Your task to perform on an android device: turn vacation reply on in the gmail app Image 0: 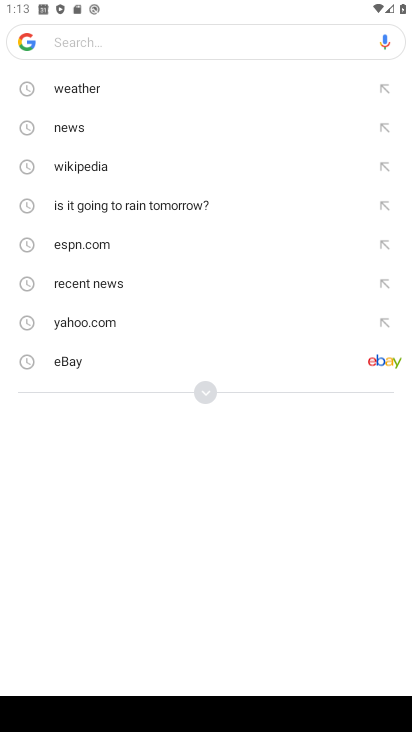
Step 0: press back button
Your task to perform on an android device: turn vacation reply on in the gmail app Image 1: 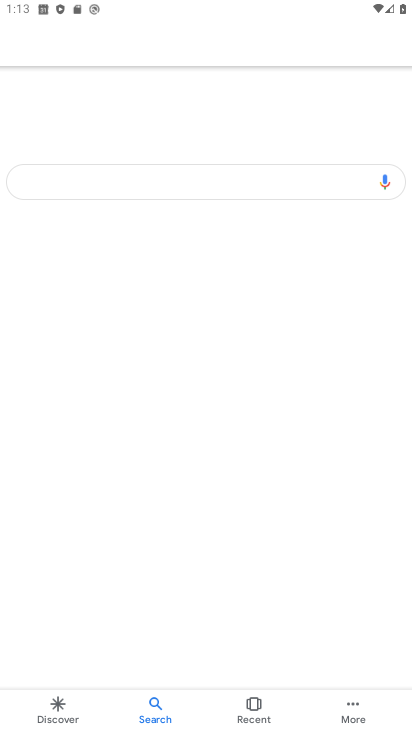
Step 1: press back button
Your task to perform on an android device: turn vacation reply on in the gmail app Image 2: 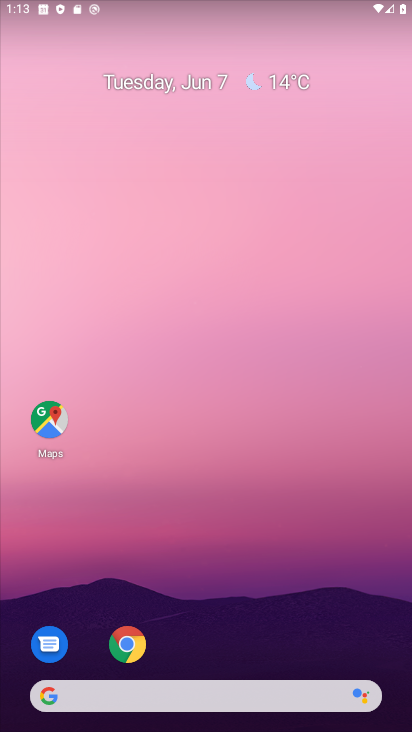
Step 2: drag from (97, 725) to (115, 160)
Your task to perform on an android device: turn vacation reply on in the gmail app Image 3: 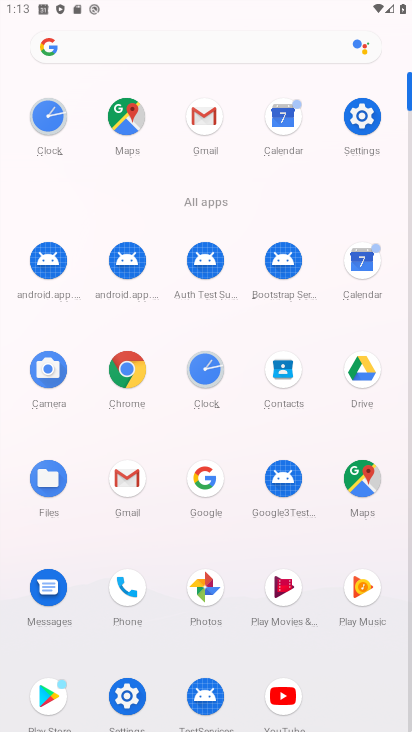
Step 3: click (206, 120)
Your task to perform on an android device: turn vacation reply on in the gmail app Image 4: 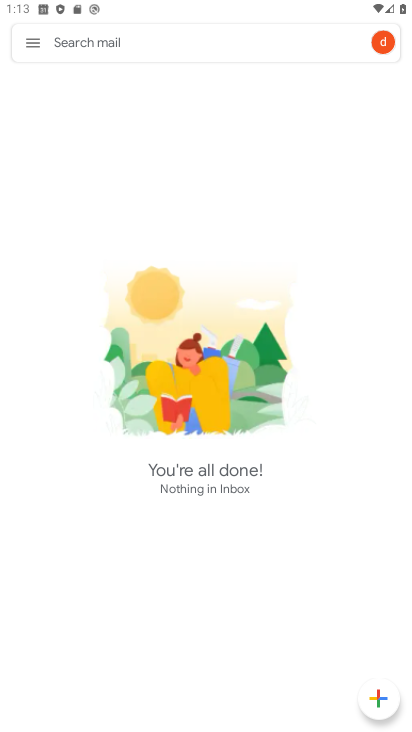
Step 4: click (34, 50)
Your task to perform on an android device: turn vacation reply on in the gmail app Image 5: 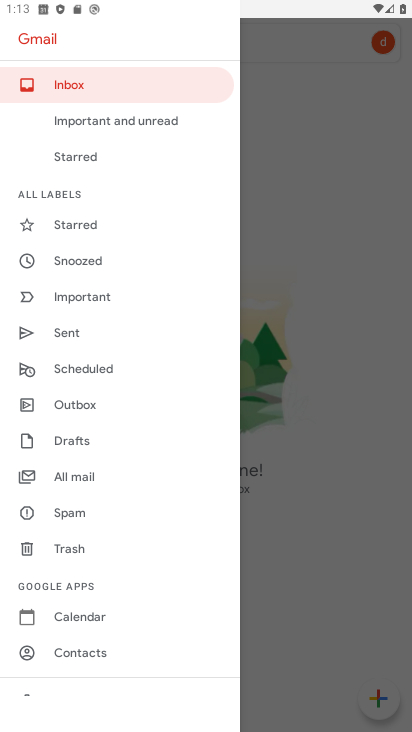
Step 5: drag from (74, 684) to (109, 348)
Your task to perform on an android device: turn vacation reply on in the gmail app Image 6: 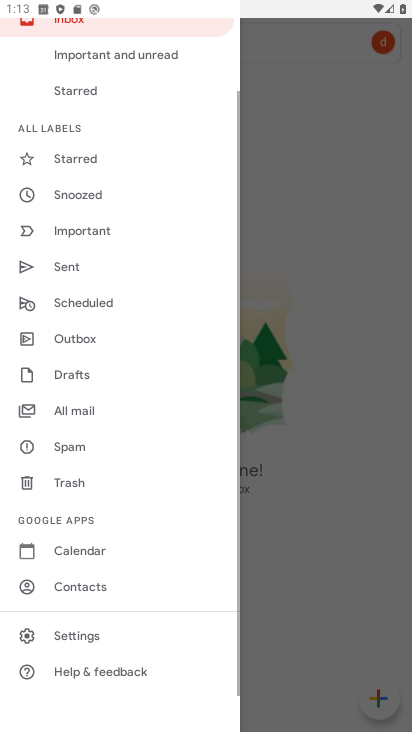
Step 6: click (71, 638)
Your task to perform on an android device: turn vacation reply on in the gmail app Image 7: 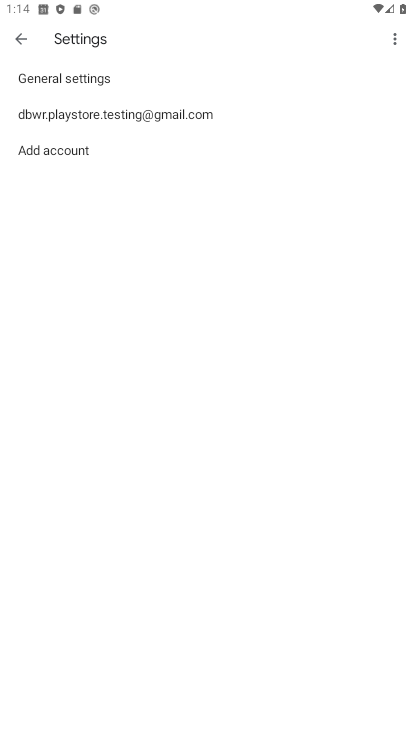
Step 7: click (124, 108)
Your task to perform on an android device: turn vacation reply on in the gmail app Image 8: 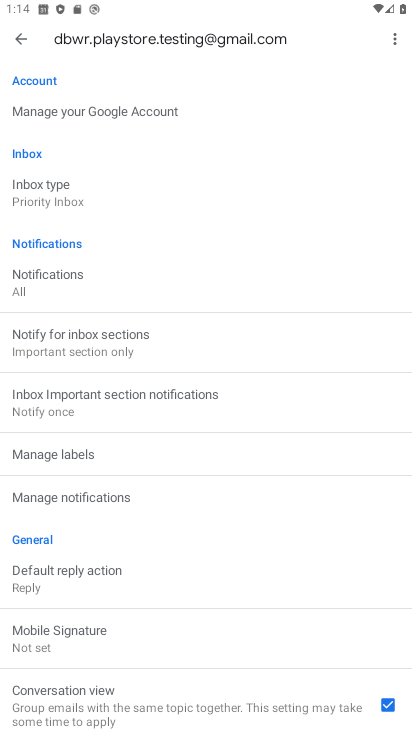
Step 8: drag from (142, 686) to (179, 316)
Your task to perform on an android device: turn vacation reply on in the gmail app Image 9: 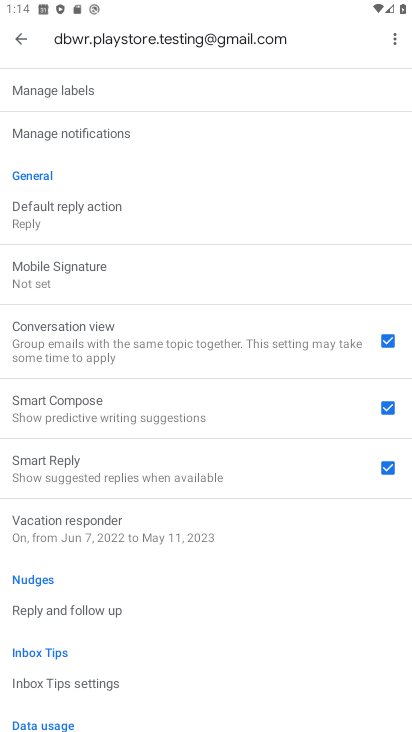
Step 9: click (105, 533)
Your task to perform on an android device: turn vacation reply on in the gmail app Image 10: 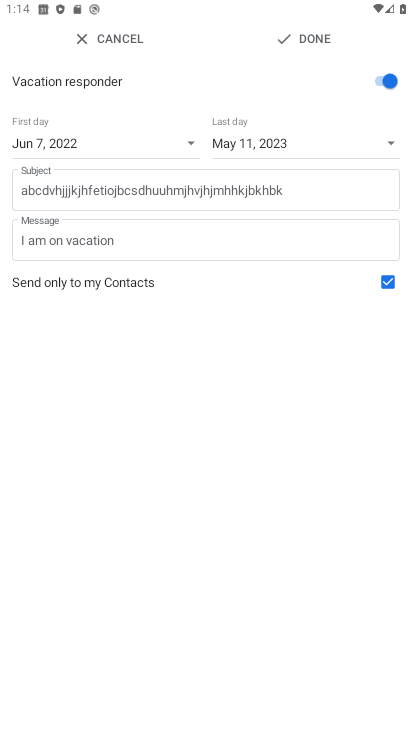
Step 10: task complete